Your task to perform on an android device: Open privacy settings Image 0: 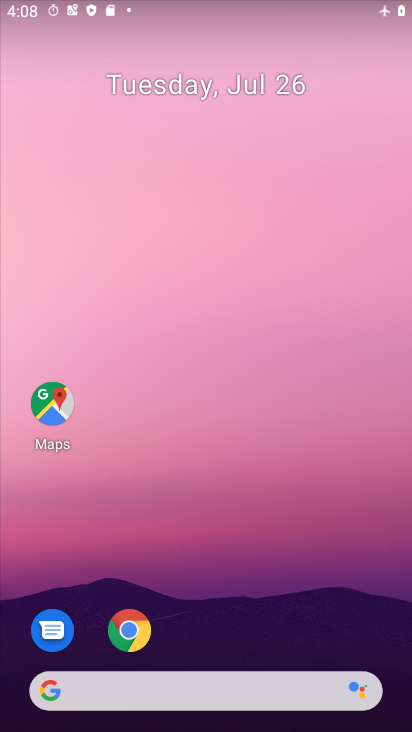
Step 0: drag from (256, 624) to (203, 150)
Your task to perform on an android device: Open privacy settings Image 1: 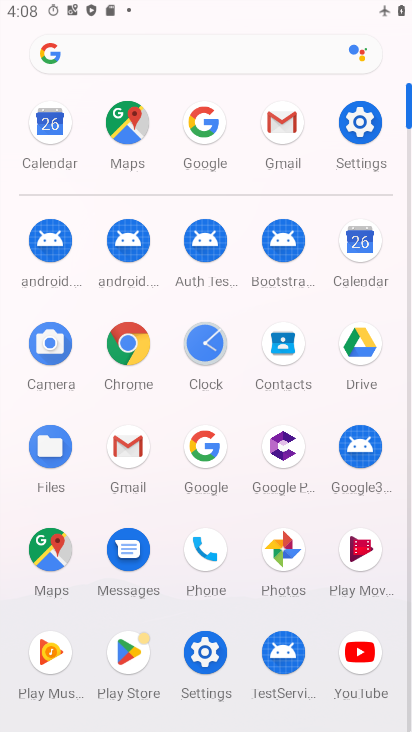
Step 1: click (361, 133)
Your task to perform on an android device: Open privacy settings Image 2: 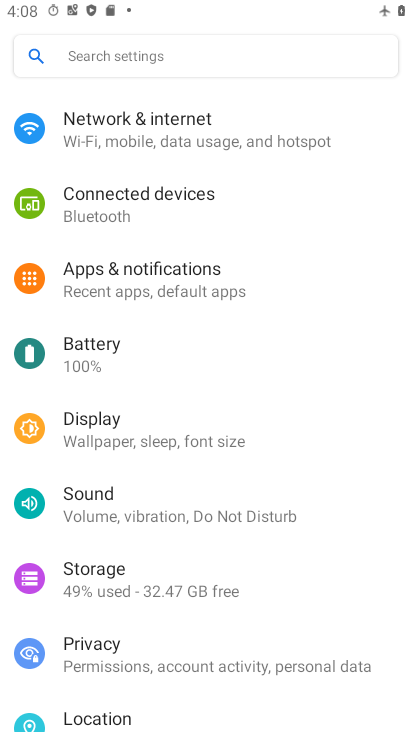
Step 2: click (229, 658)
Your task to perform on an android device: Open privacy settings Image 3: 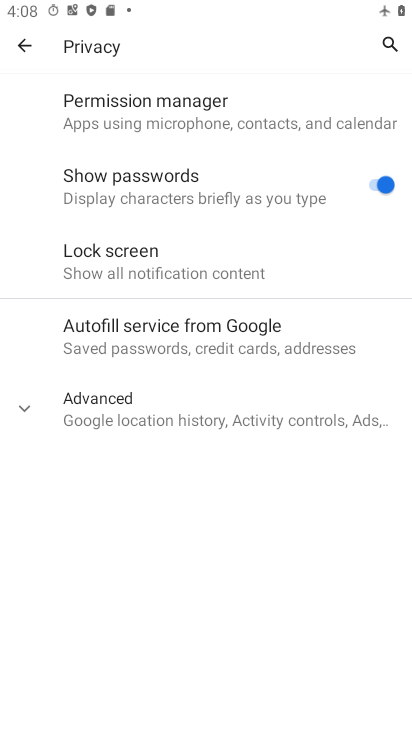
Step 3: task complete